Your task to perform on an android device: Turn on the flashlight Image 0: 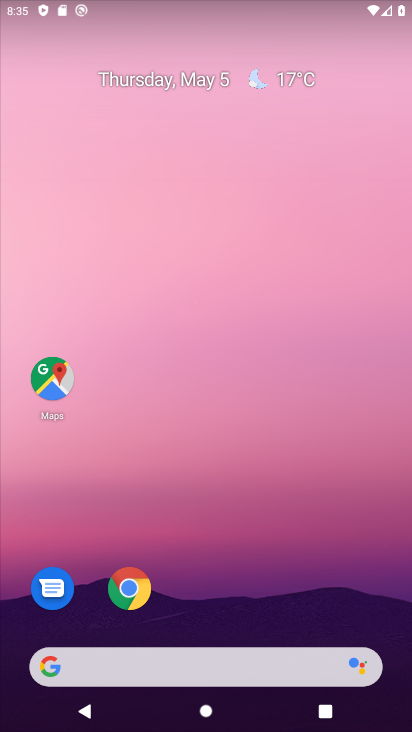
Step 0: drag from (247, 575) to (313, 211)
Your task to perform on an android device: Turn on the flashlight Image 1: 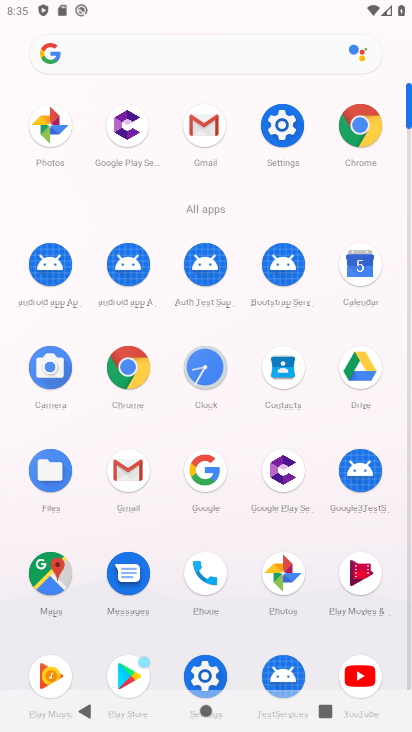
Step 1: click (281, 128)
Your task to perform on an android device: Turn on the flashlight Image 2: 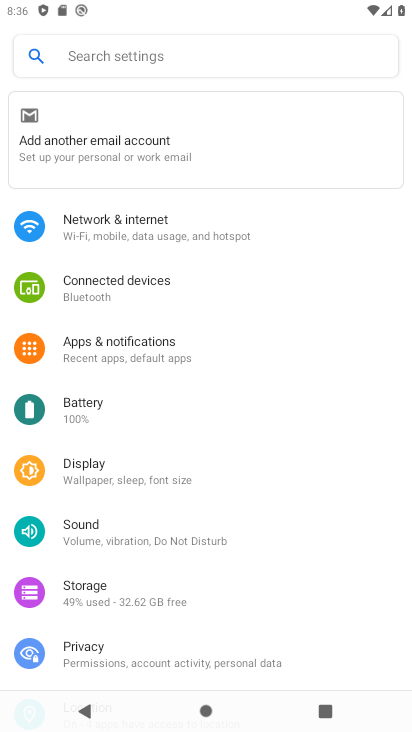
Step 2: task complete